Your task to perform on an android device: change the clock style Image 0: 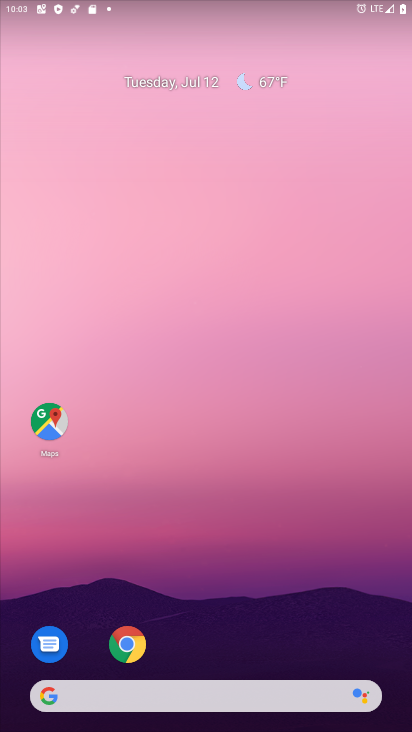
Step 0: drag from (184, 572) to (354, 12)
Your task to perform on an android device: change the clock style Image 1: 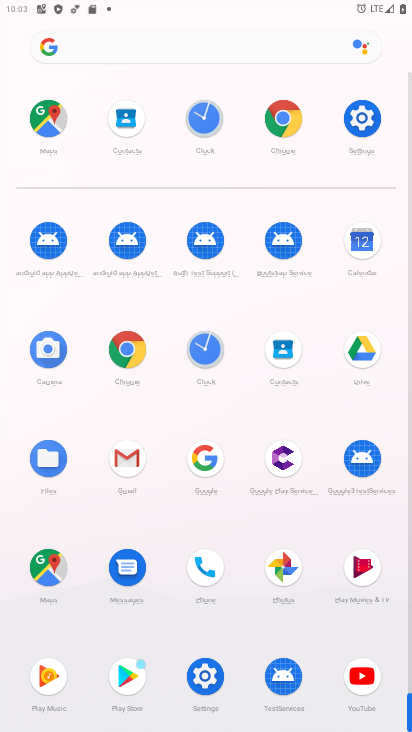
Step 1: click (199, 344)
Your task to perform on an android device: change the clock style Image 2: 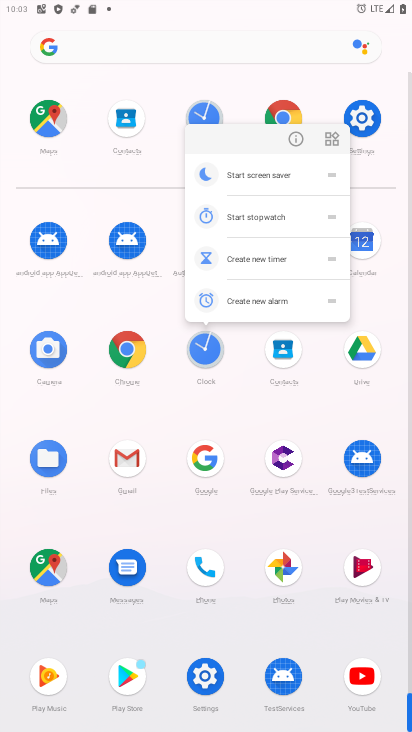
Step 2: click (303, 142)
Your task to perform on an android device: change the clock style Image 3: 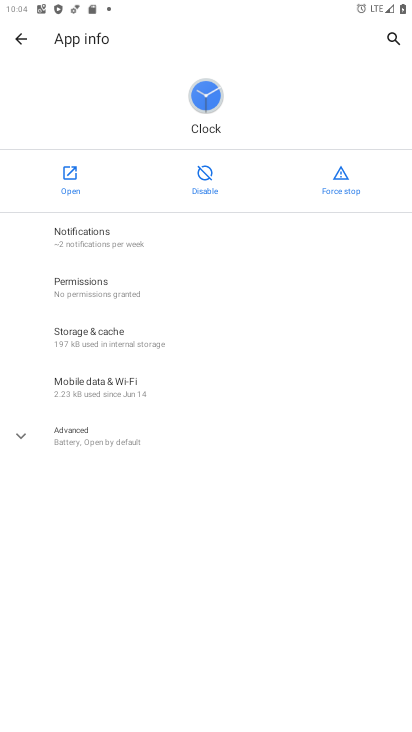
Step 3: click (66, 180)
Your task to perform on an android device: change the clock style Image 4: 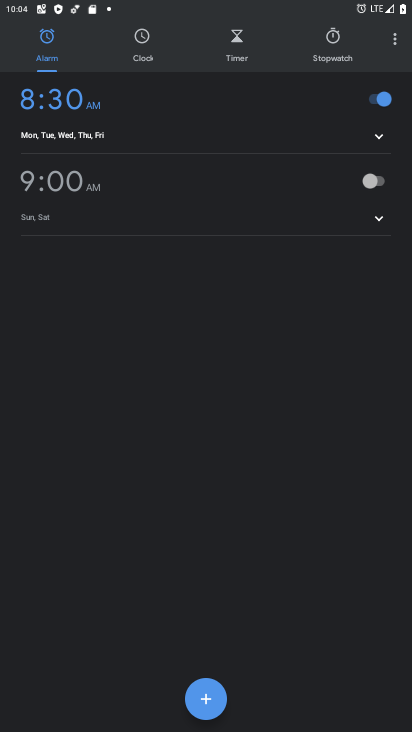
Step 4: click (391, 38)
Your task to perform on an android device: change the clock style Image 5: 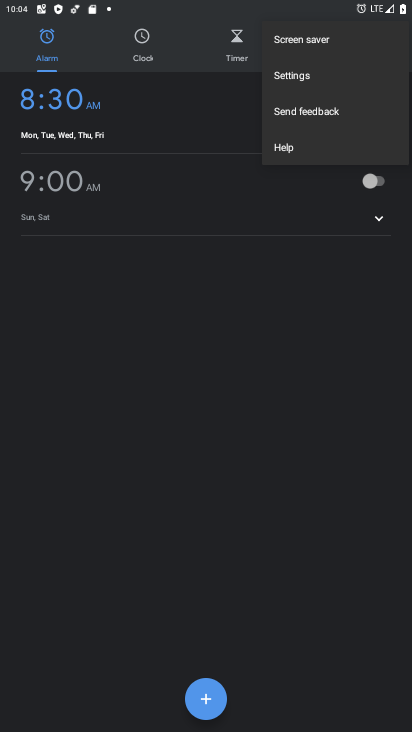
Step 5: click (302, 73)
Your task to perform on an android device: change the clock style Image 6: 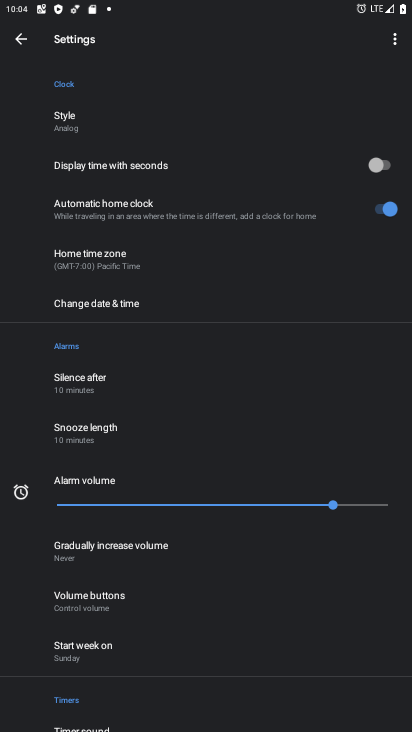
Step 6: click (92, 122)
Your task to perform on an android device: change the clock style Image 7: 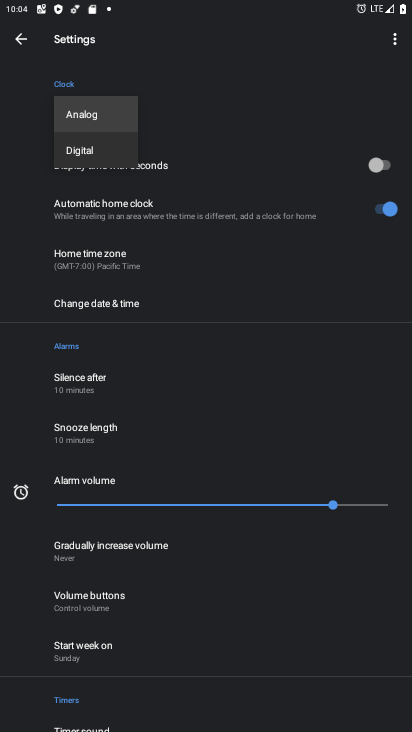
Step 7: click (90, 144)
Your task to perform on an android device: change the clock style Image 8: 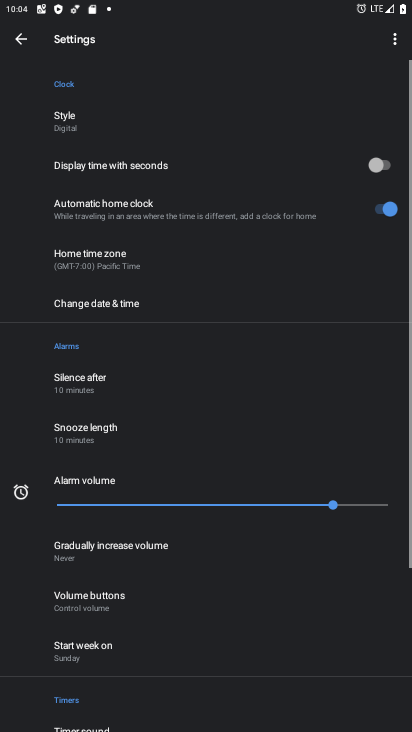
Step 8: task complete